Your task to perform on an android device: change the clock display to show seconds Image 0: 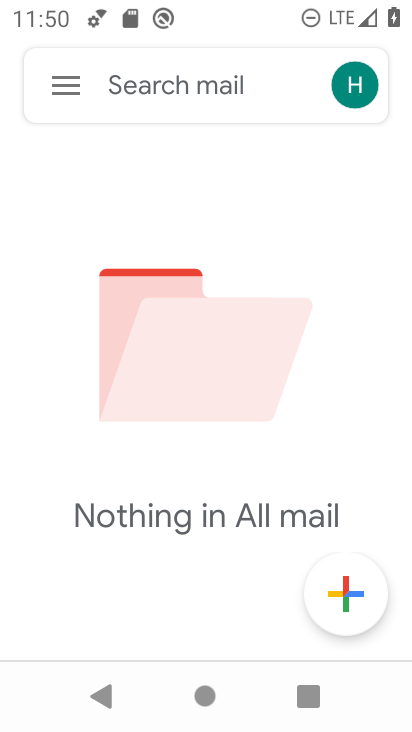
Step 0: press home button
Your task to perform on an android device: change the clock display to show seconds Image 1: 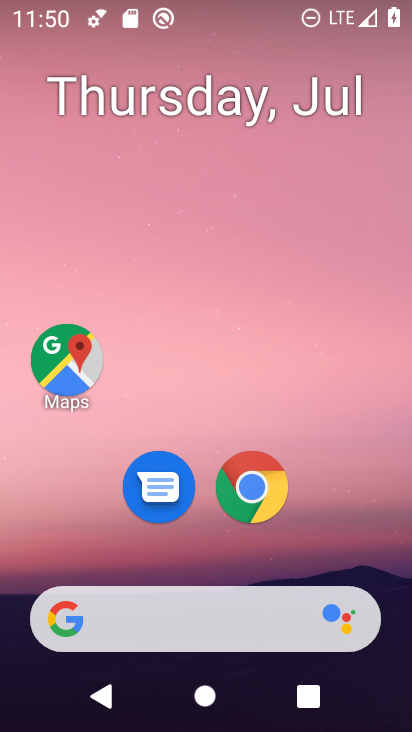
Step 1: drag from (189, 596) to (176, 317)
Your task to perform on an android device: change the clock display to show seconds Image 2: 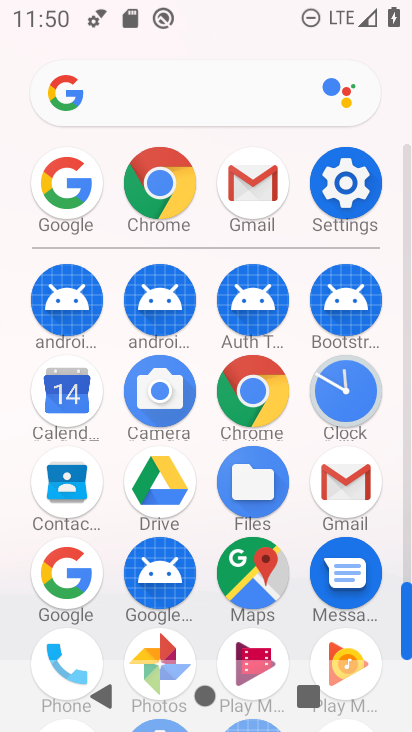
Step 2: click (348, 403)
Your task to perform on an android device: change the clock display to show seconds Image 3: 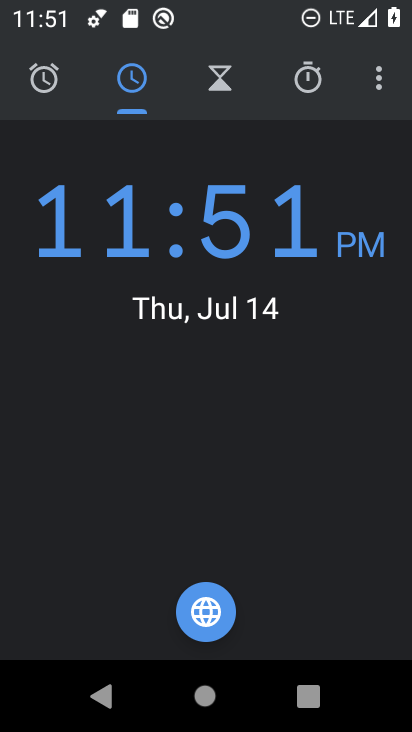
Step 3: click (381, 88)
Your task to perform on an android device: change the clock display to show seconds Image 4: 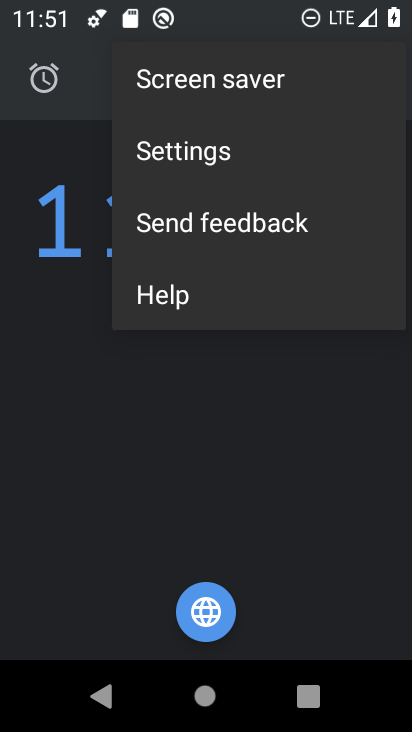
Step 4: click (233, 170)
Your task to perform on an android device: change the clock display to show seconds Image 5: 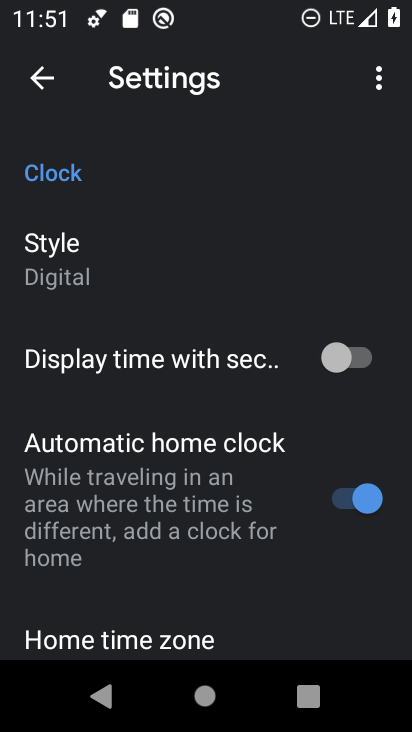
Step 5: click (139, 366)
Your task to perform on an android device: change the clock display to show seconds Image 6: 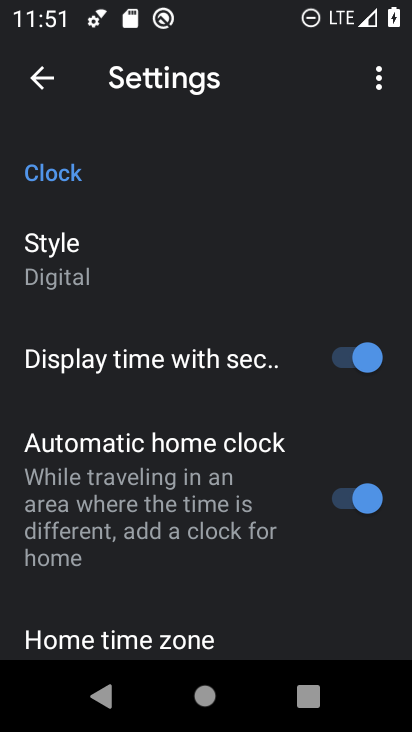
Step 6: task complete